Your task to perform on an android device: Search for the best books on Goodreads. Image 0: 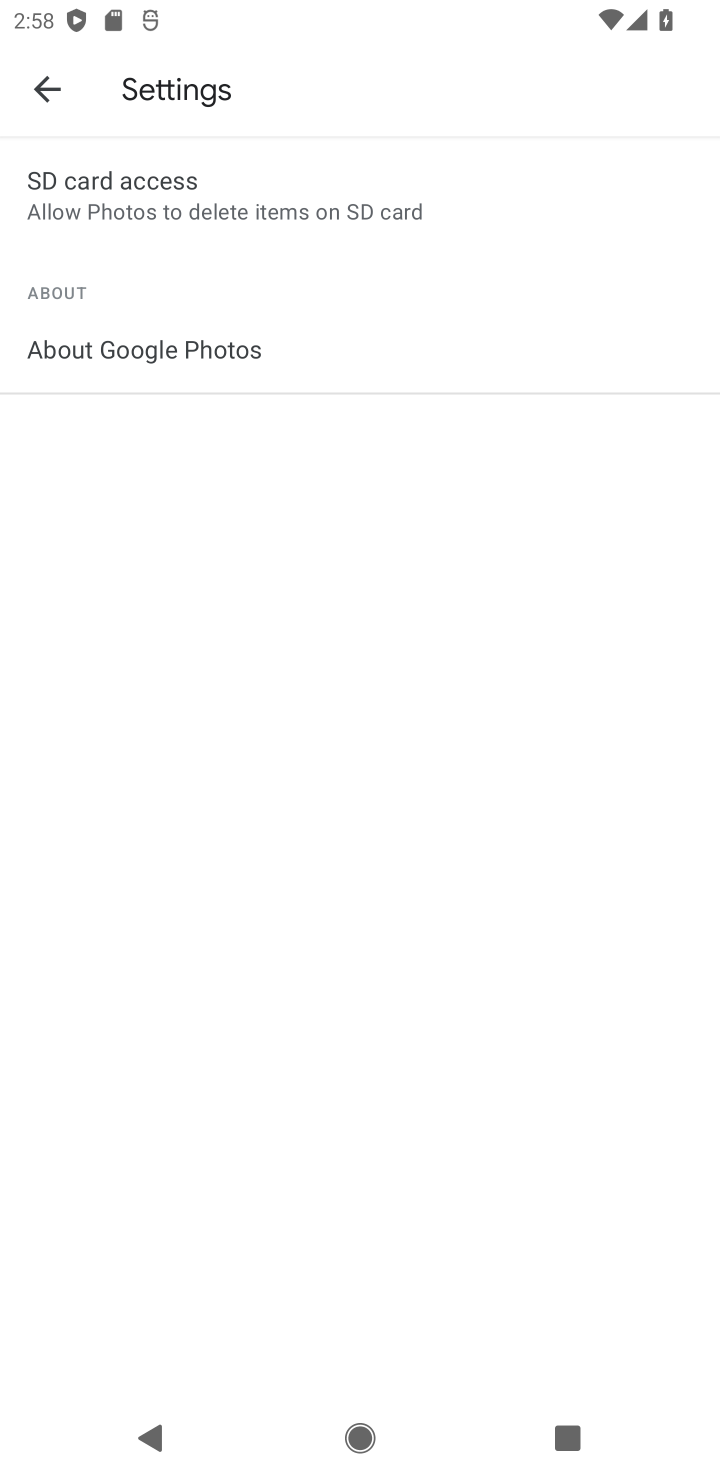
Step 0: press home button
Your task to perform on an android device: Search for the best books on Goodreads. Image 1: 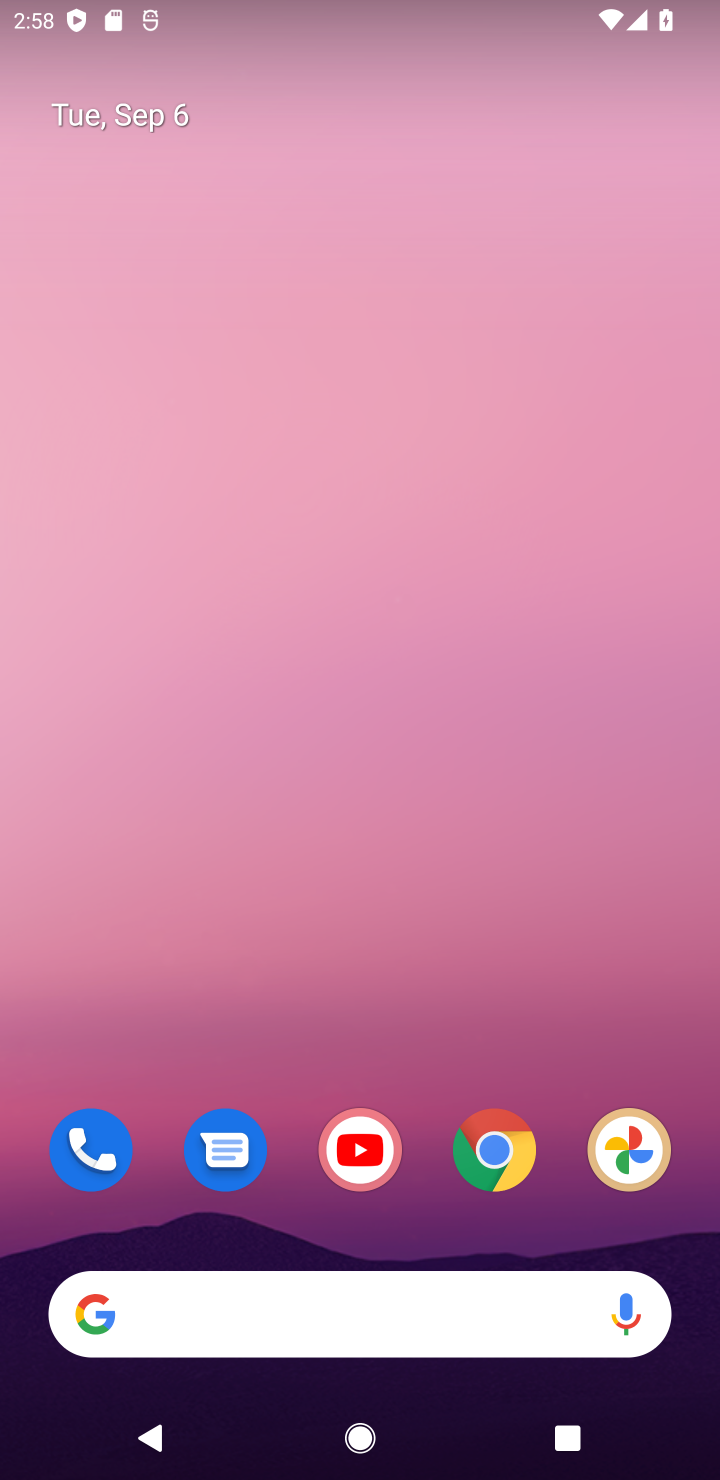
Step 1: click (486, 1154)
Your task to perform on an android device: Search for the best books on Goodreads. Image 2: 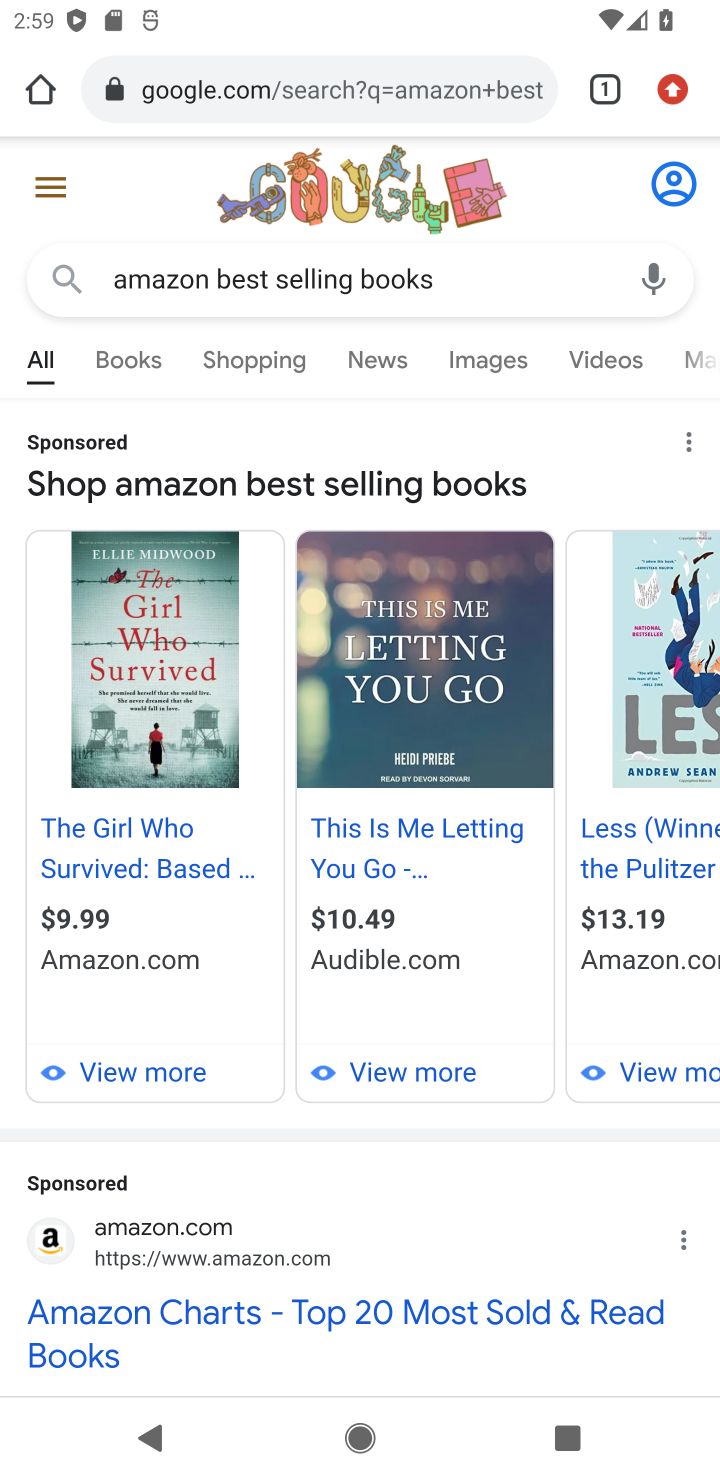
Step 2: click (273, 99)
Your task to perform on an android device: Search for the best books on Goodreads. Image 3: 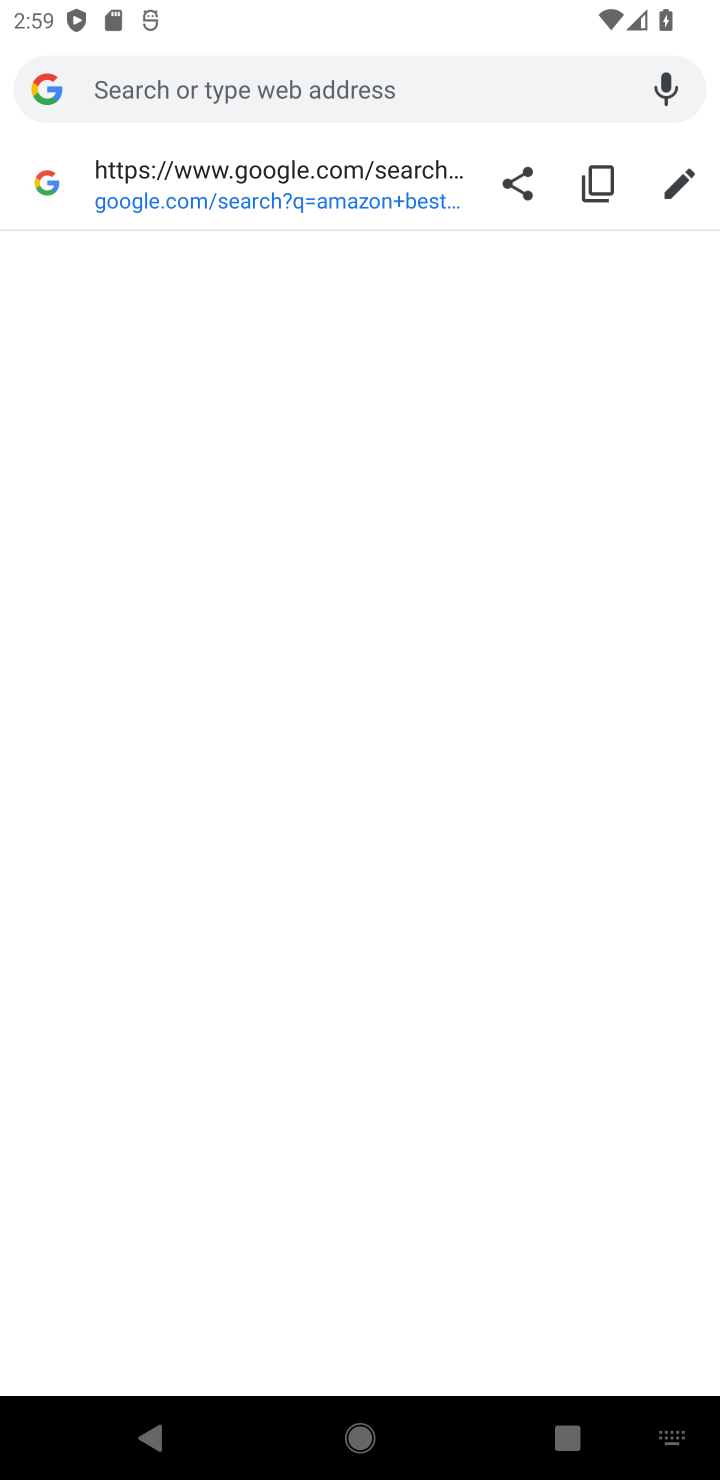
Step 3: type "Goodreads."
Your task to perform on an android device: Search for the best books on Goodreads. Image 4: 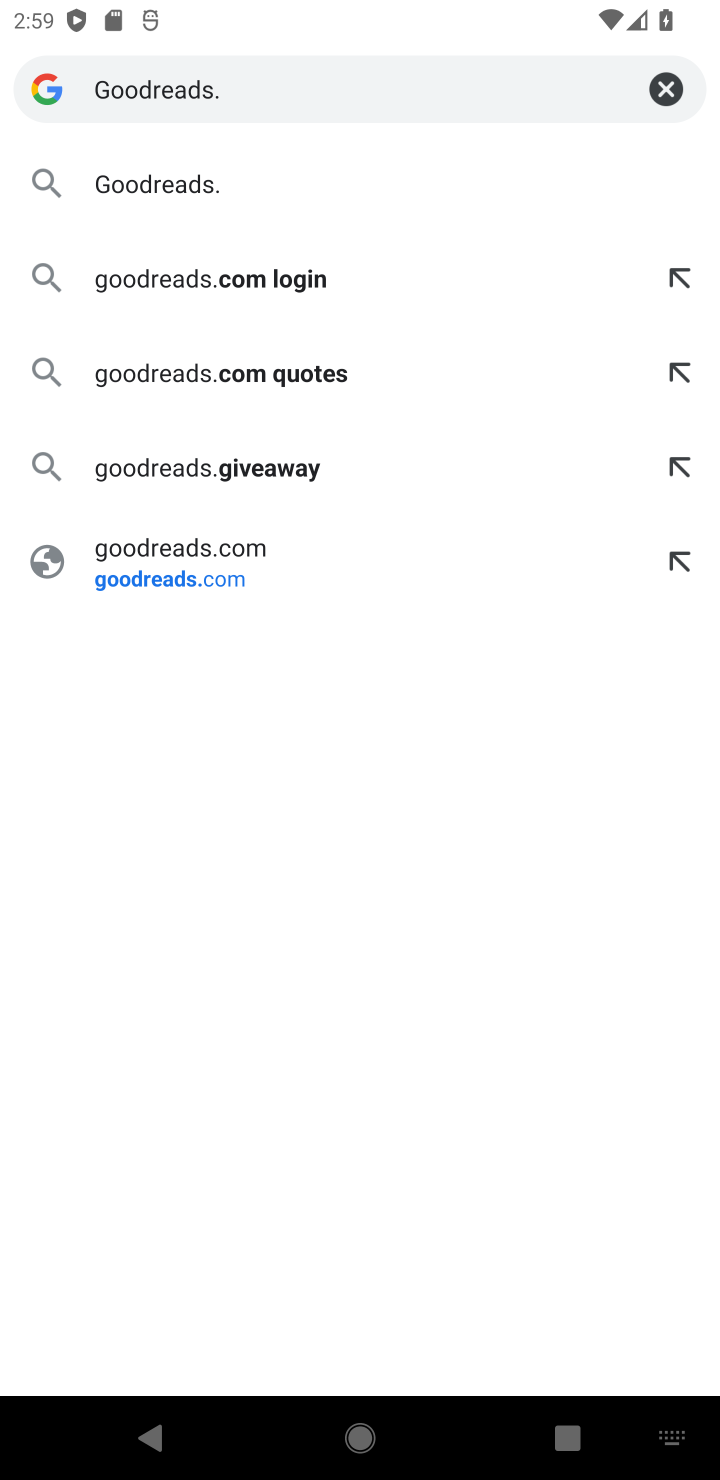
Step 4: click (138, 203)
Your task to perform on an android device: Search for the best books on Goodreads. Image 5: 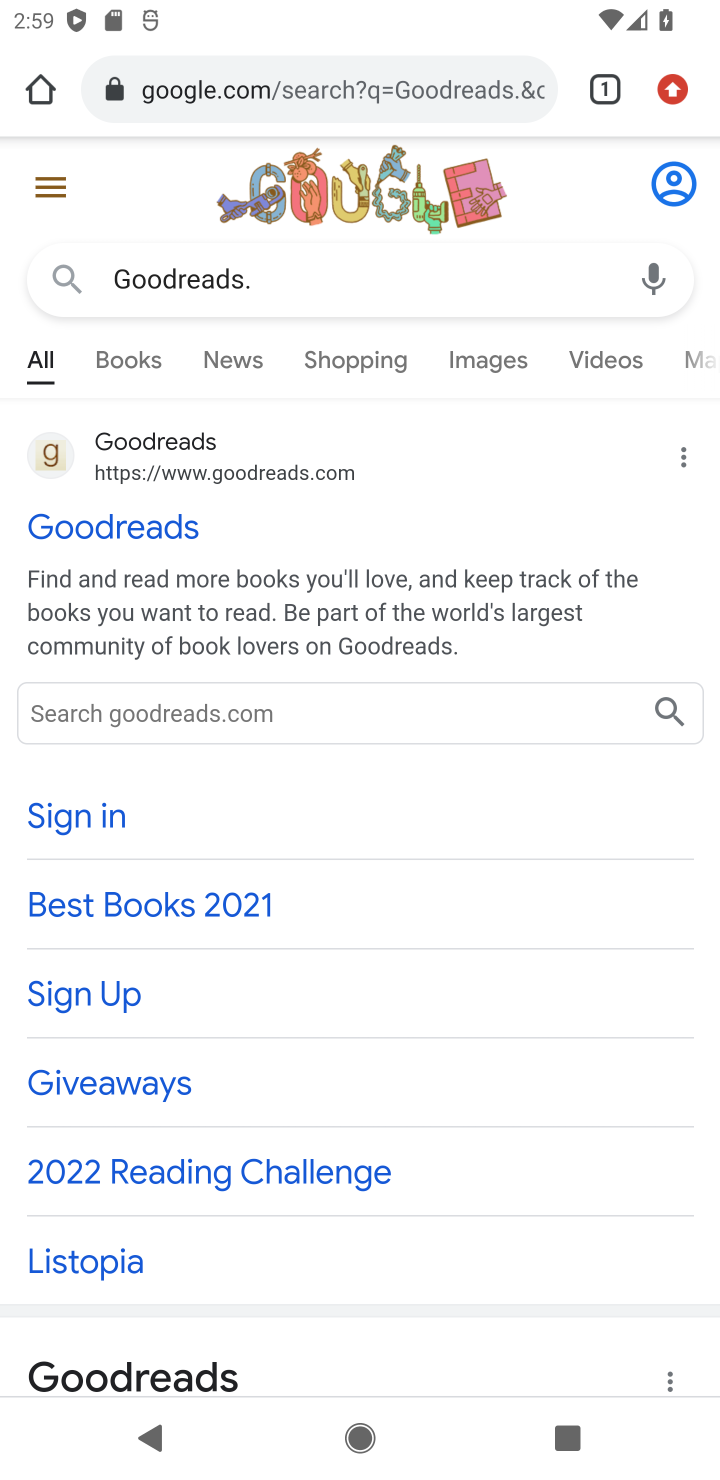
Step 5: click (106, 543)
Your task to perform on an android device: Search for the best books on Goodreads. Image 6: 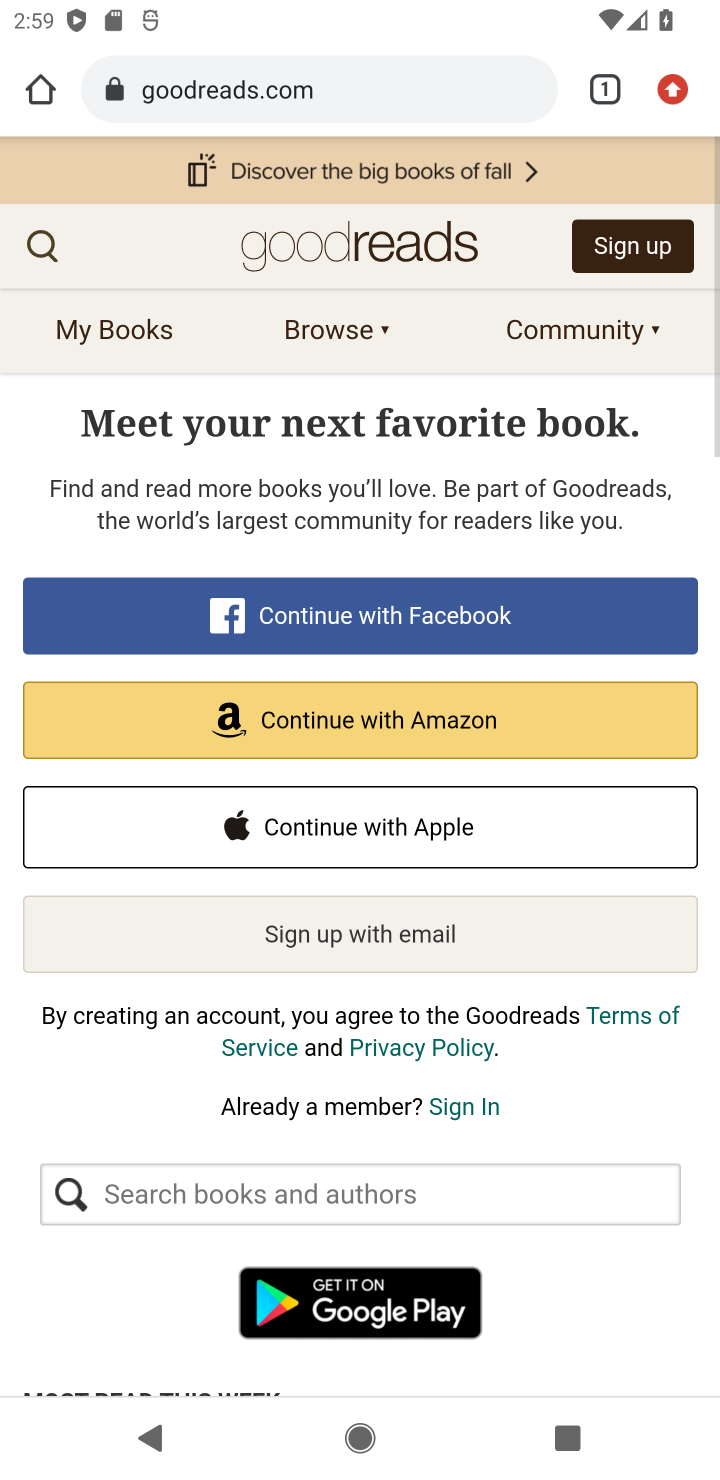
Step 6: click (54, 248)
Your task to perform on an android device: Search for the best books on Goodreads. Image 7: 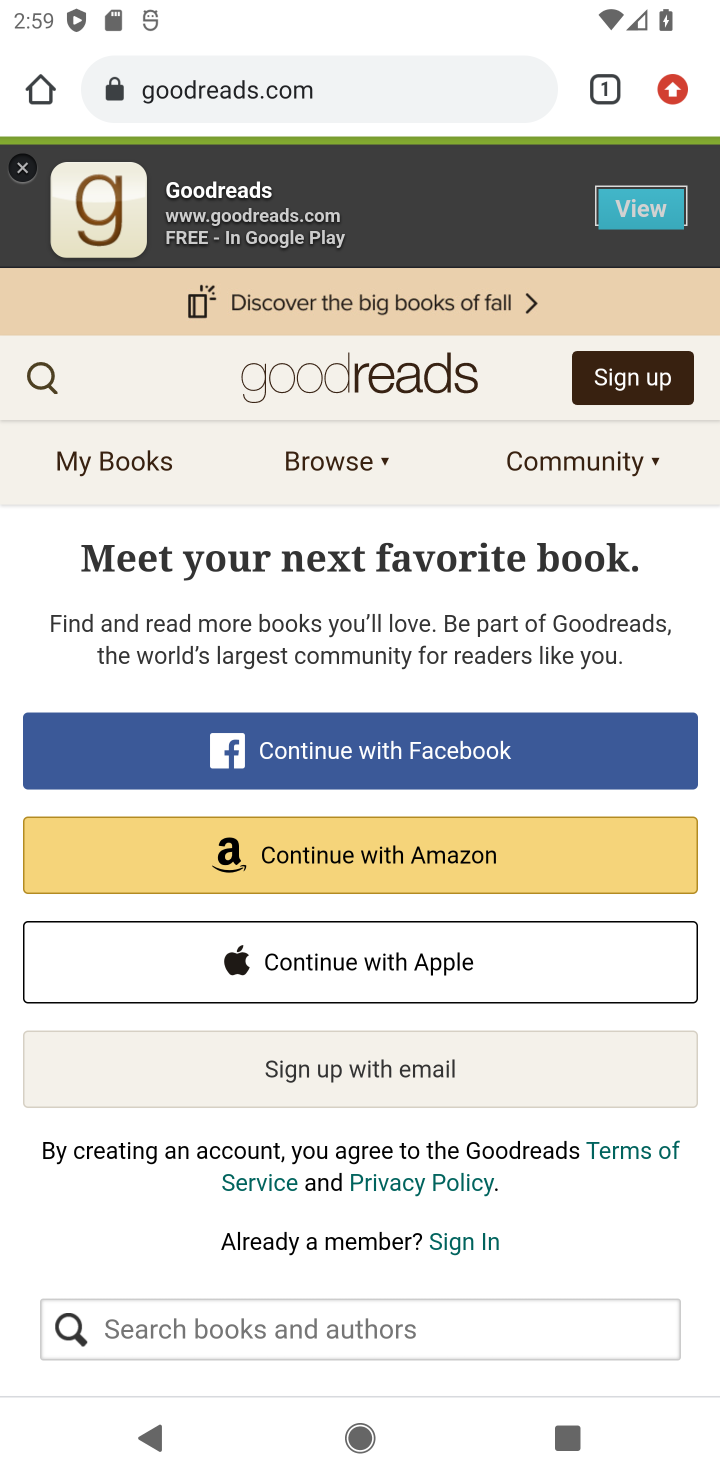
Step 7: click (43, 387)
Your task to perform on an android device: Search for the best books on Goodreads. Image 8: 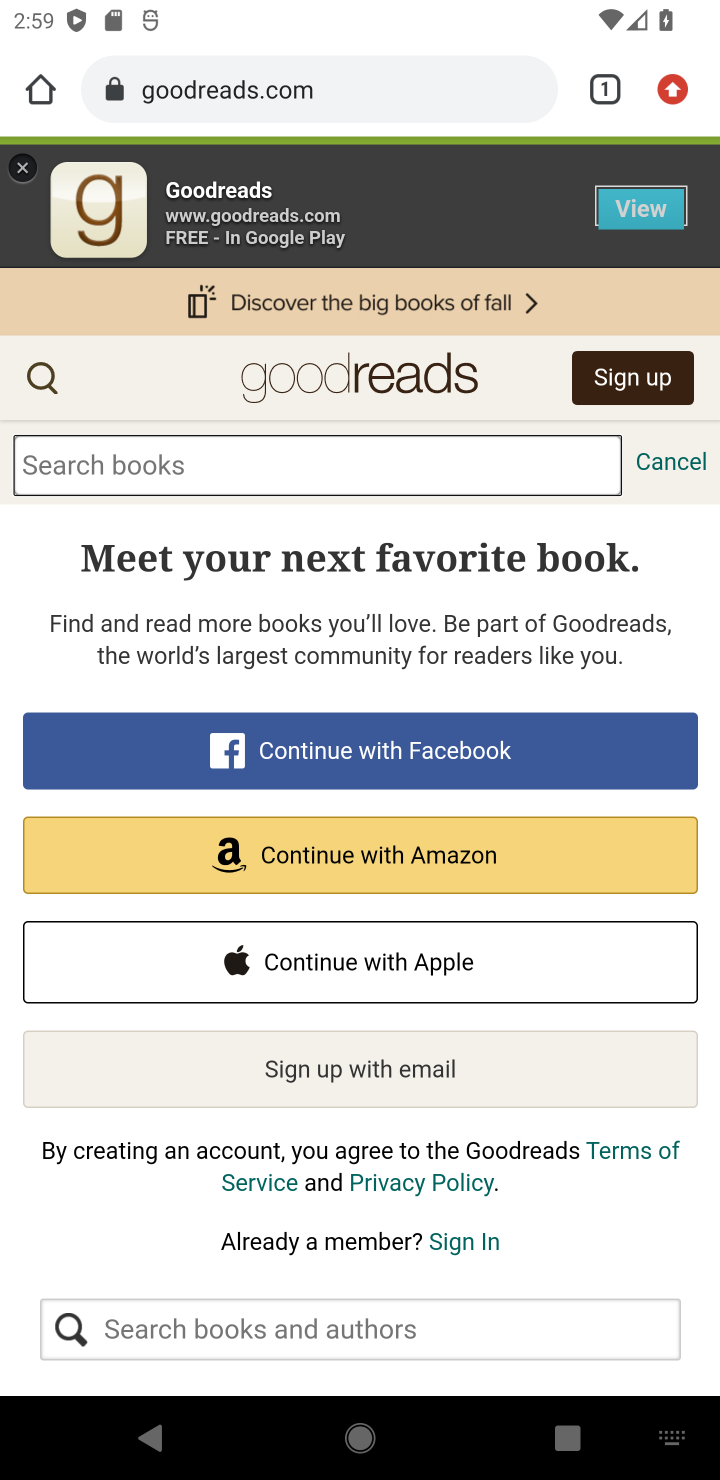
Step 8: click (108, 466)
Your task to perform on an android device: Search for the best books on Goodreads. Image 9: 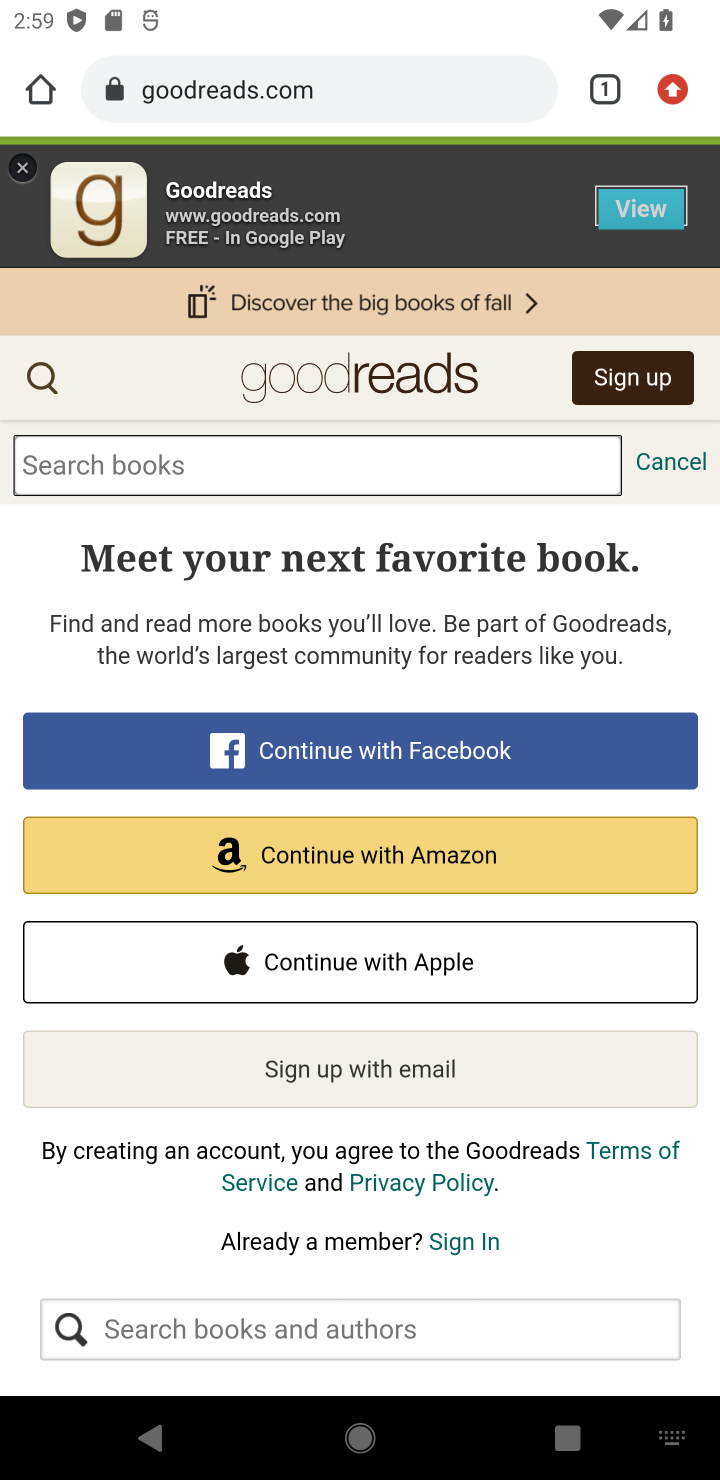
Step 9: type "best books"
Your task to perform on an android device: Search for the best books on Goodreads. Image 10: 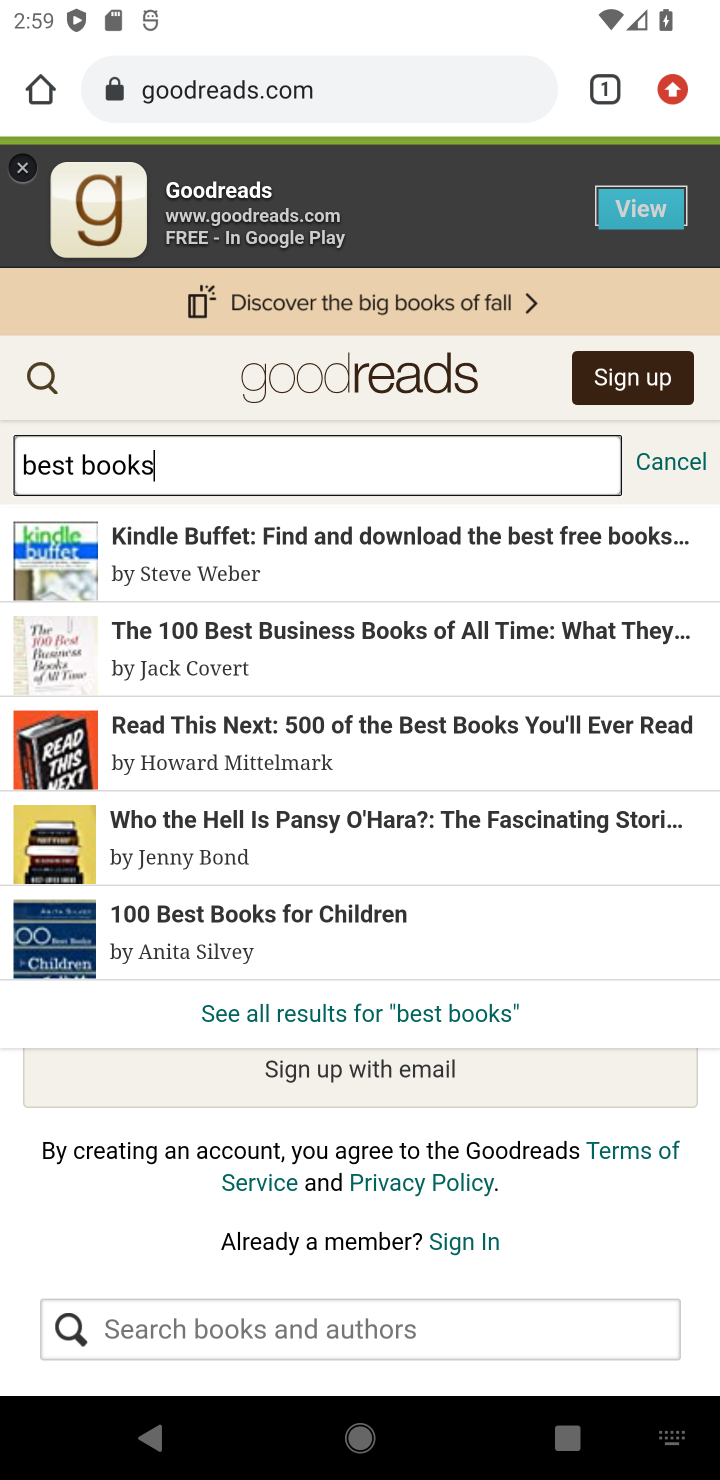
Step 10: click (445, 1022)
Your task to perform on an android device: Search for the best books on Goodreads. Image 11: 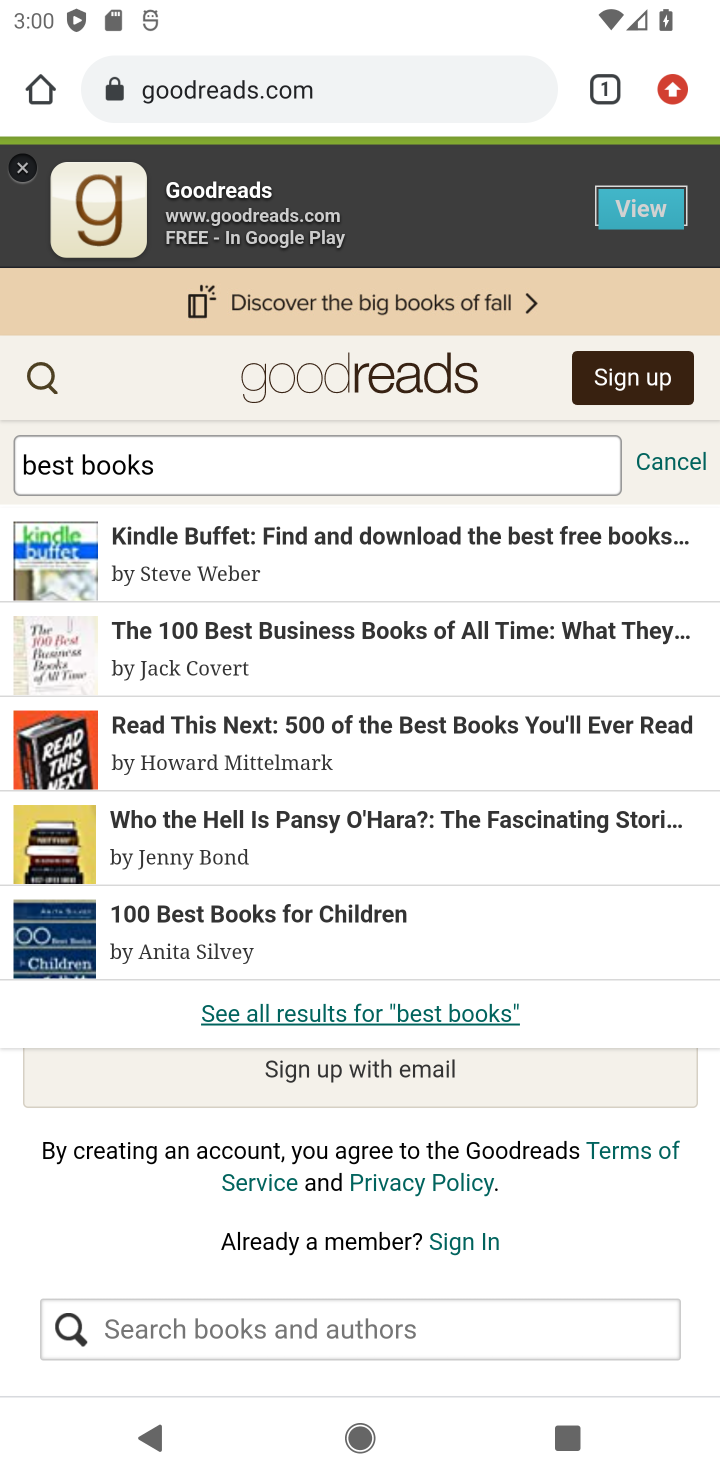
Step 11: click (269, 1017)
Your task to perform on an android device: Search for the best books on Goodreads. Image 12: 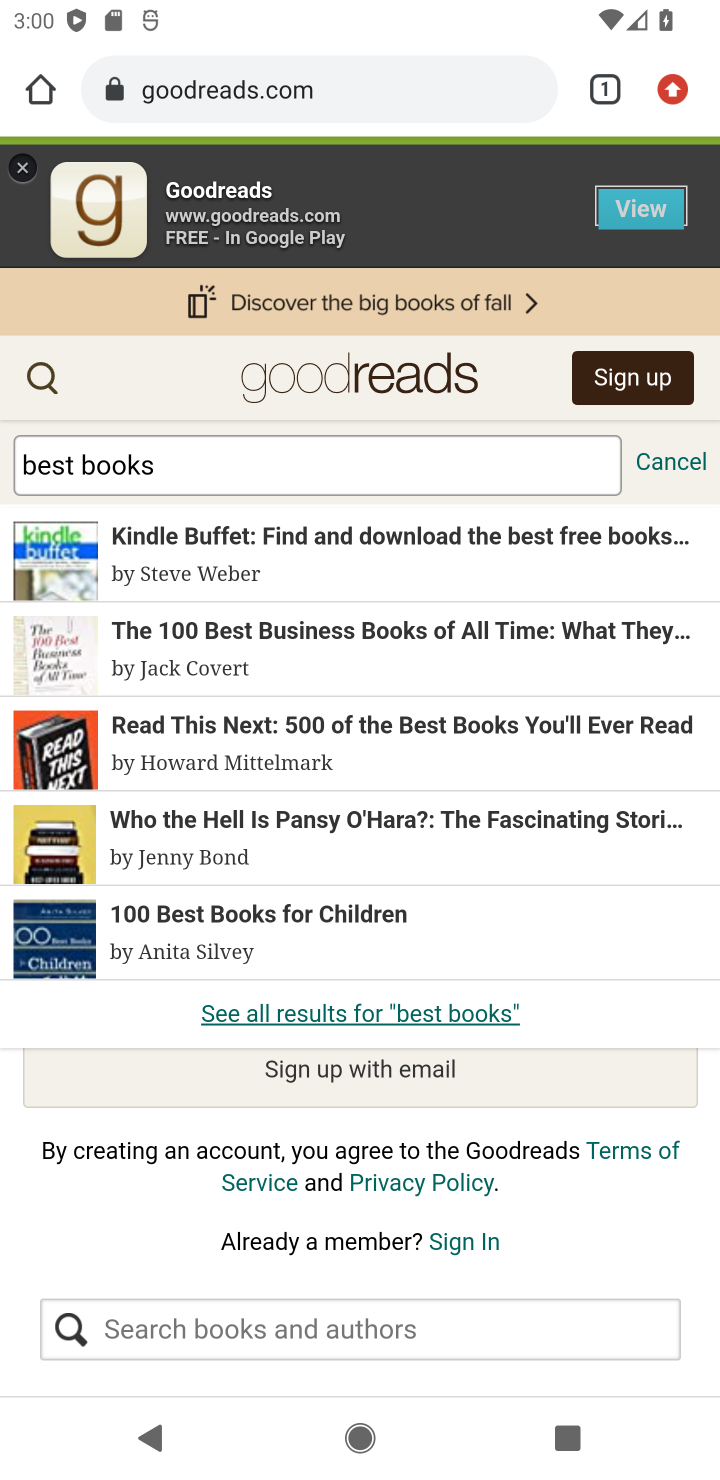
Step 12: task complete